Your task to perform on an android device: Find coffee shops on Maps Image 0: 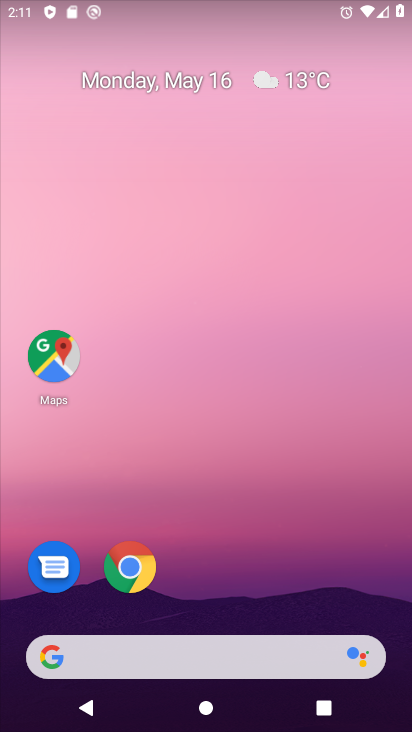
Step 0: click (50, 367)
Your task to perform on an android device: Find coffee shops on Maps Image 1: 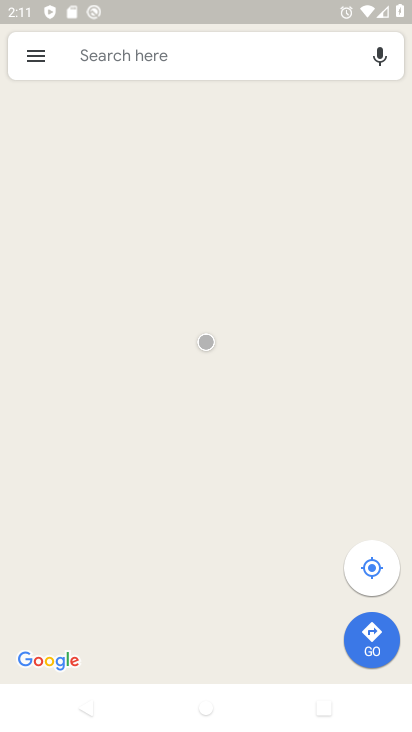
Step 1: click (200, 57)
Your task to perform on an android device: Find coffee shops on Maps Image 2: 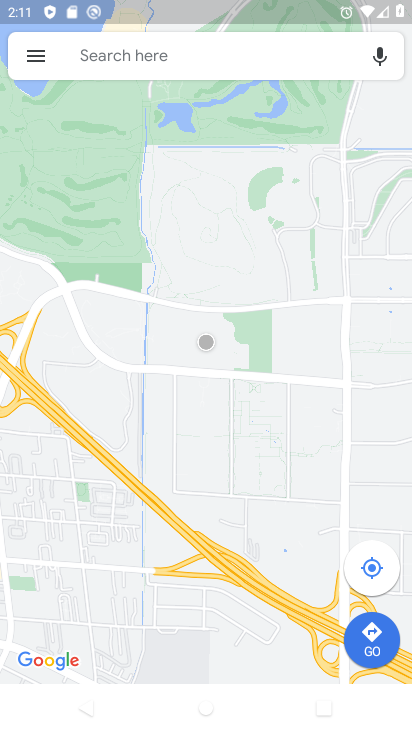
Step 2: click (196, 60)
Your task to perform on an android device: Find coffee shops on Maps Image 3: 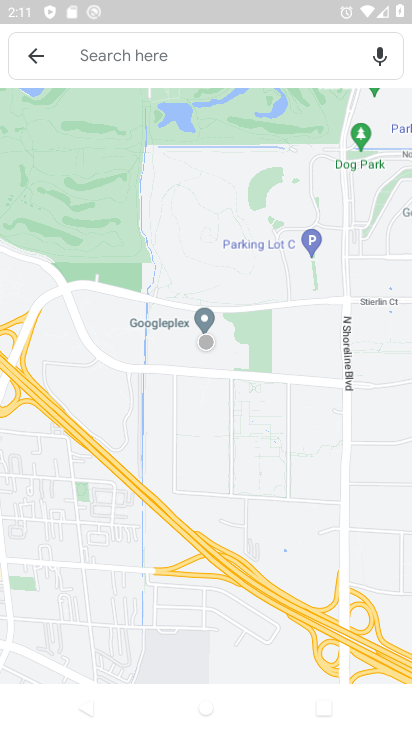
Step 3: click (196, 60)
Your task to perform on an android device: Find coffee shops on Maps Image 4: 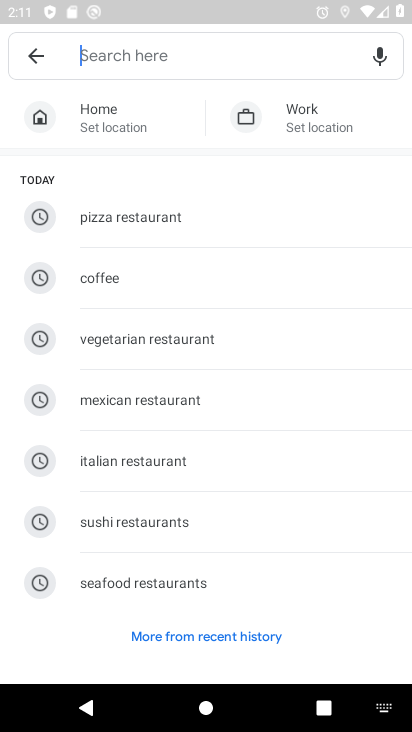
Step 4: type "coffee shops"
Your task to perform on an android device: Find coffee shops on Maps Image 5: 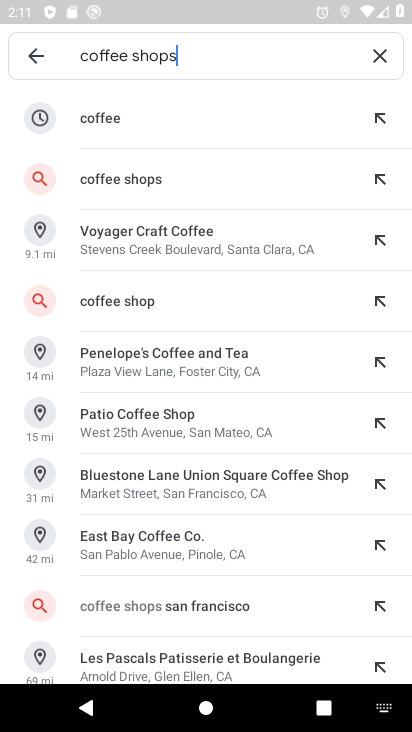
Step 5: click (101, 175)
Your task to perform on an android device: Find coffee shops on Maps Image 6: 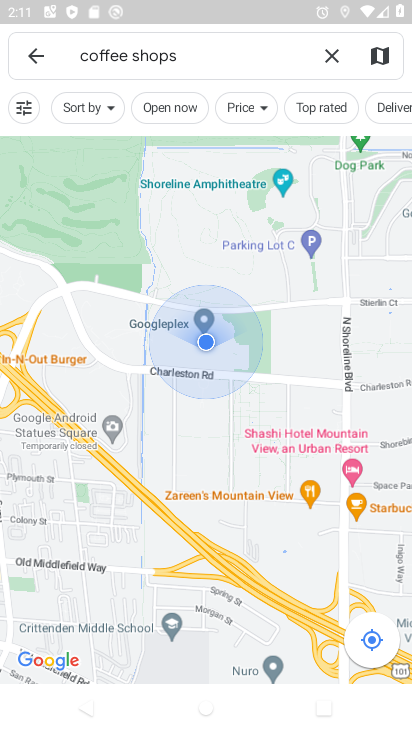
Step 6: task complete